Your task to perform on an android device: Go to Wikipedia Image 0: 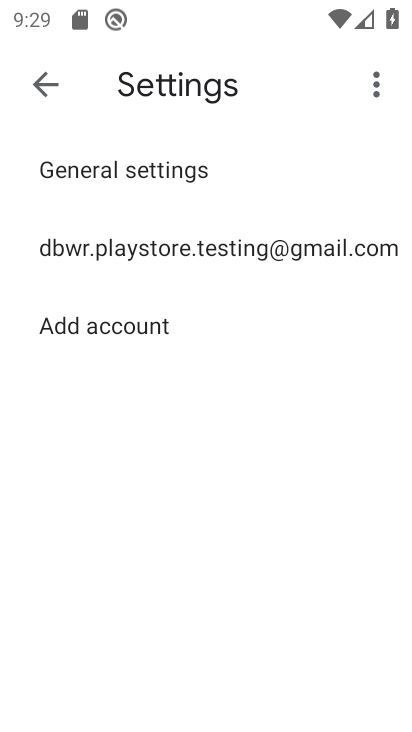
Step 0: press home button
Your task to perform on an android device: Go to Wikipedia Image 1: 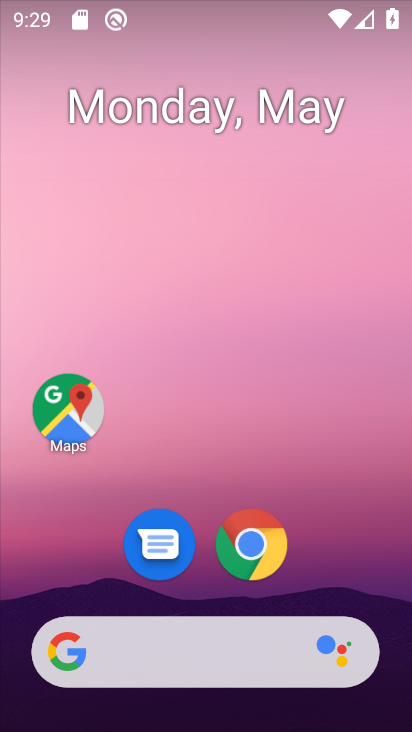
Step 1: drag from (373, 575) to (319, 139)
Your task to perform on an android device: Go to Wikipedia Image 2: 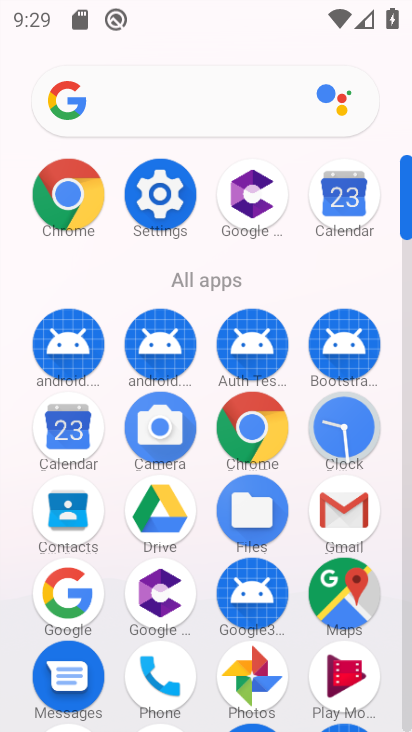
Step 2: click (64, 225)
Your task to perform on an android device: Go to Wikipedia Image 3: 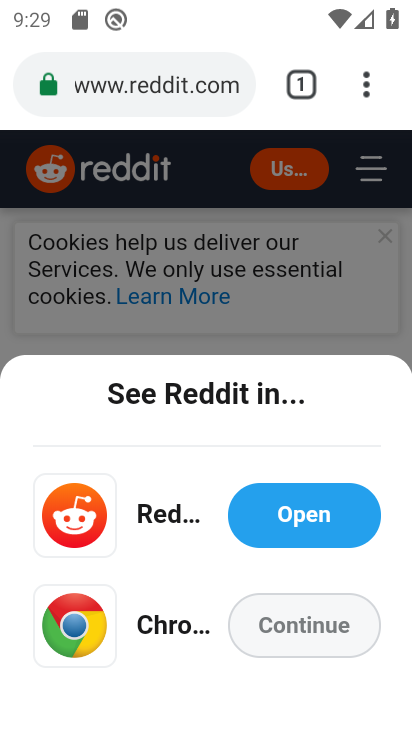
Step 3: click (165, 87)
Your task to perform on an android device: Go to Wikipedia Image 4: 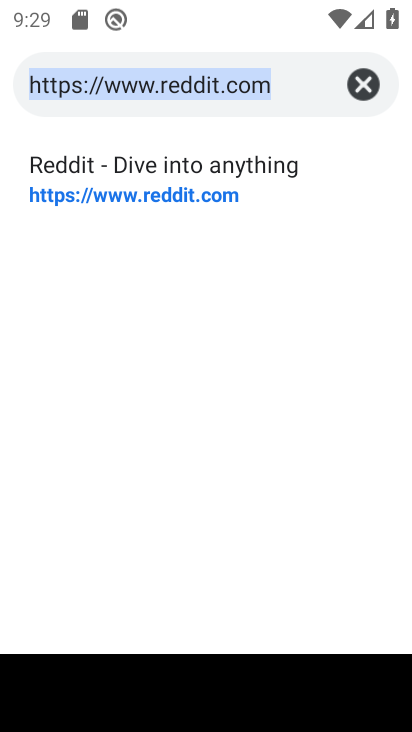
Step 4: click (372, 78)
Your task to perform on an android device: Go to Wikipedia Image 5: 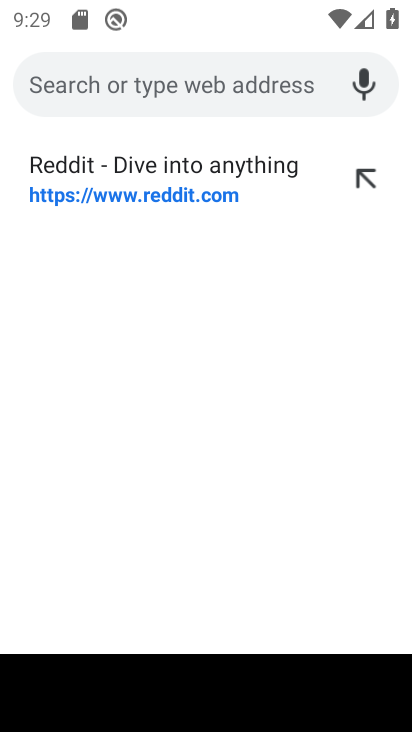
Step 5: type "wikipedia"
Your task to perform on an android device: Go to Wikipedia Image 6: 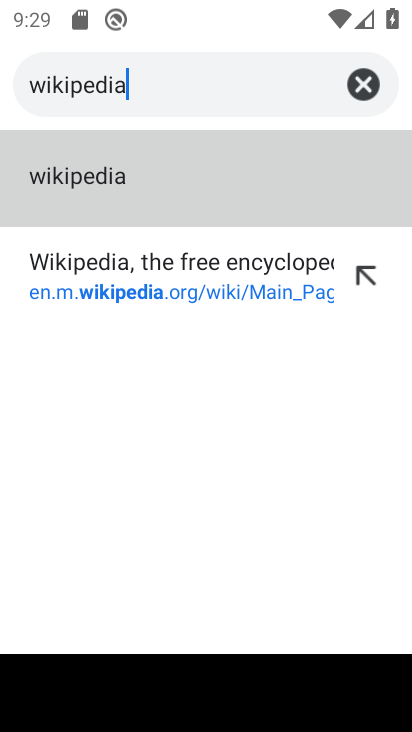
Step 6: click (179, 191)
Your task to perform on an android device: Go to Wikipedia Image 7: 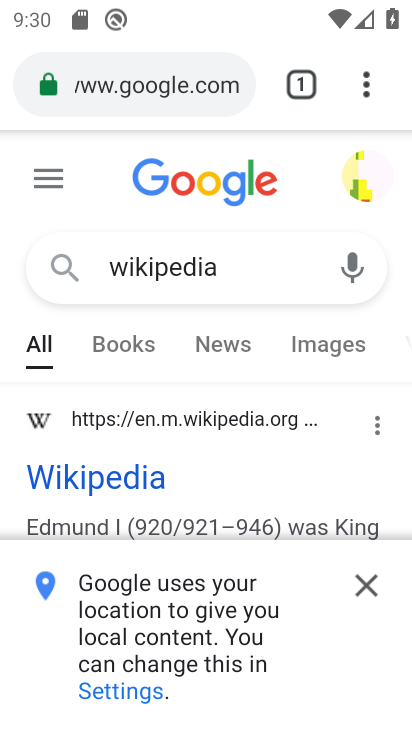
Step 7: task complete